Your task to perform on an android device: Open wifi settings Image 0: 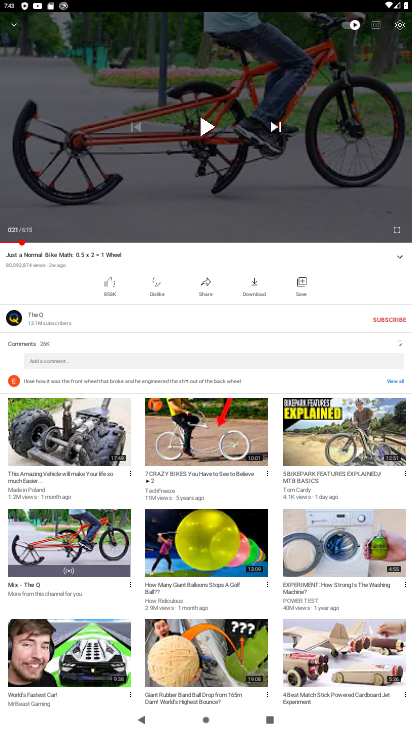
Step 0: press home button
Your task to perform on an android device: Open wifi settings Image 1: 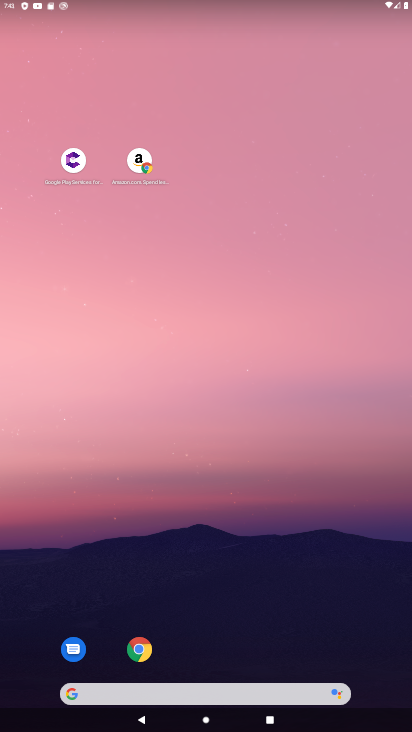
Step 1: drag from (174, 694) to (298, 159)
Your task to perform on an android device: Open wifi settings Image 2: 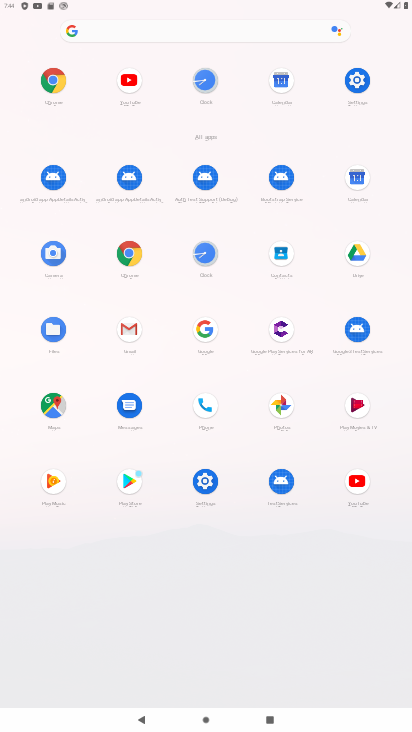
Step 2: click (358, 81)
Your task to perform on an android device: Open wifi settings Image 3: 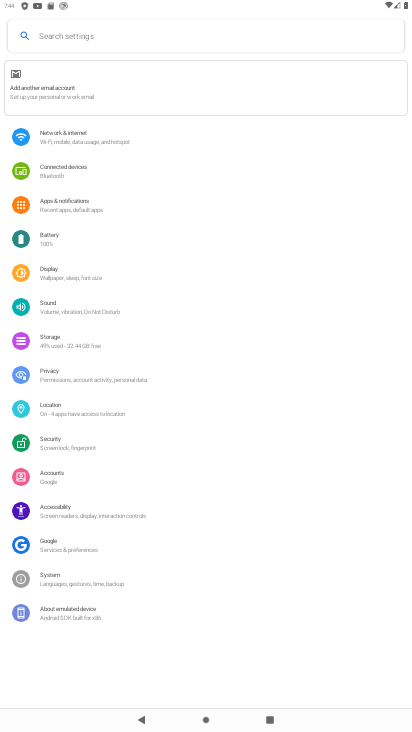
Step 3: click (88, 140)
Your task to perform on an android device: Open wifi settings Image 4: 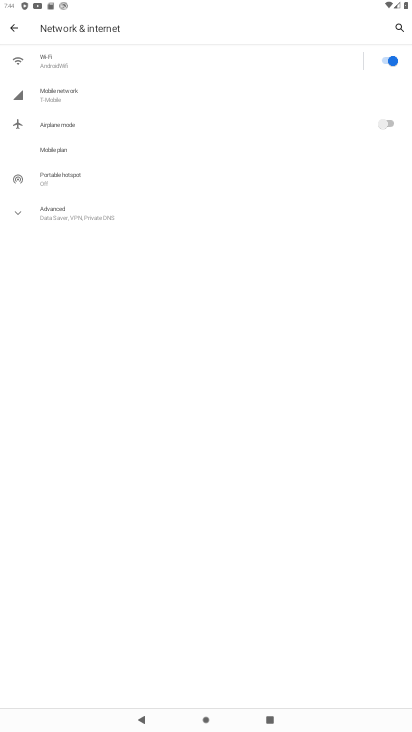
Step 4: click (60, 66)
Your task to perform on an android device: Open wifi settings Image 5: 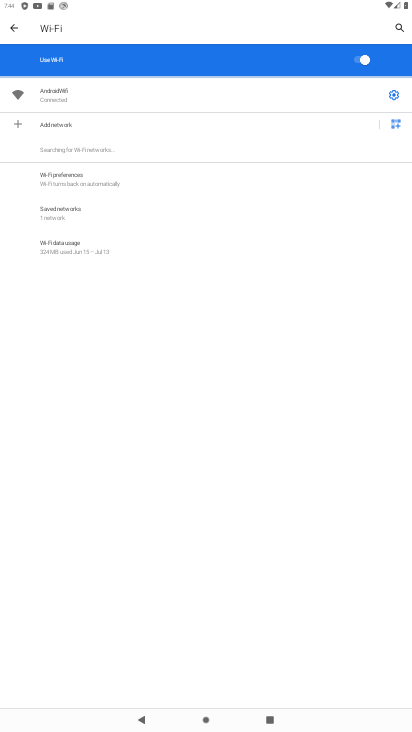
Step 5: click (397, 94)
Your task to perform on an android device: Open wifi settings Image 6: 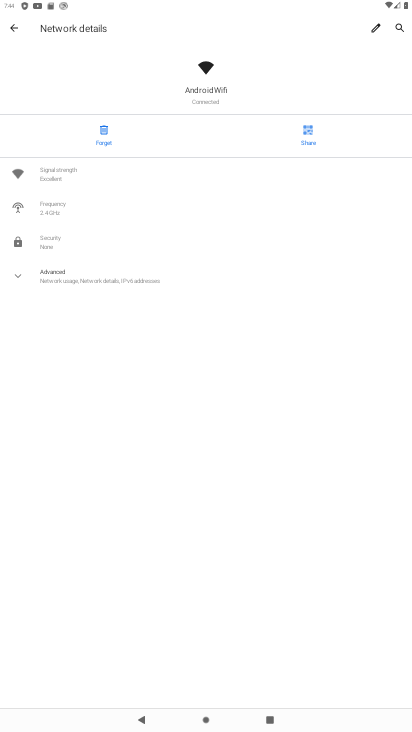
Step 6: task complete